Your task to perform on an android device: turn off location Image 0: 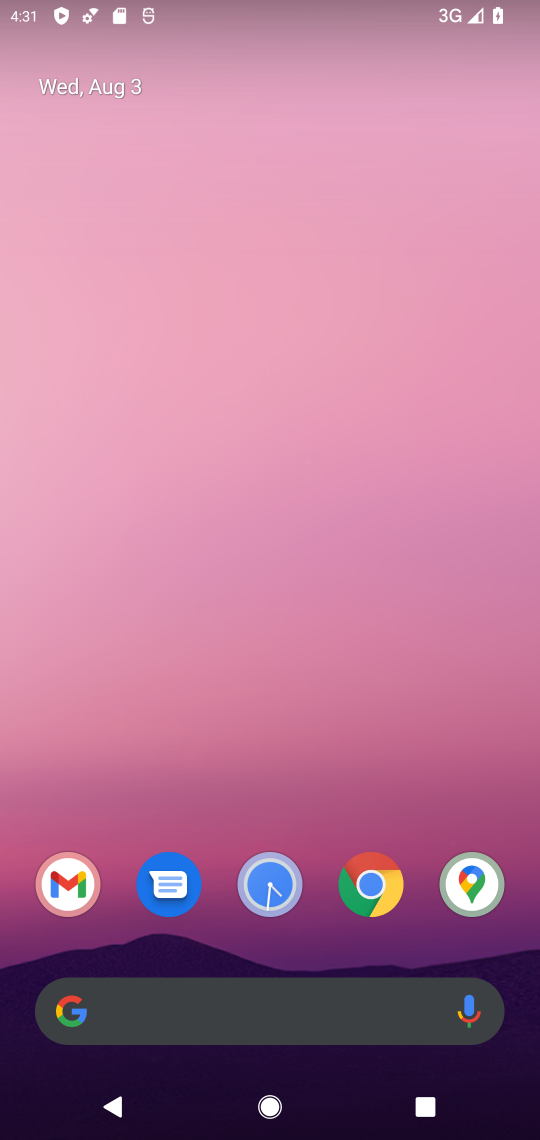
Step 0: task complete